Your task to perform on an android device: toggle pop-ups in chrome Image 0: 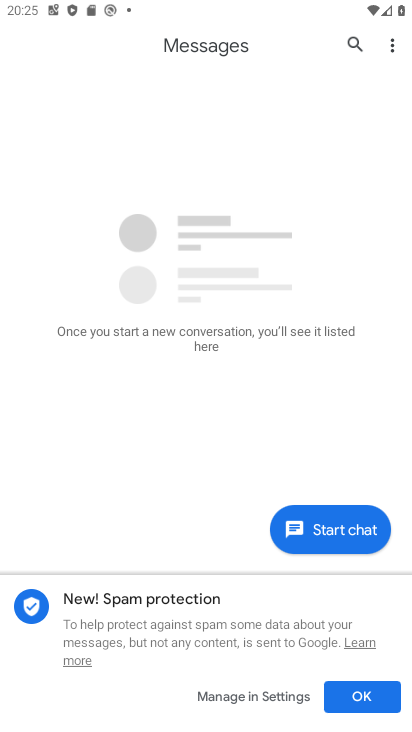
Step 0: press home button
Your task to perform on an android device: toggle pop-ups in chrome Image 1: 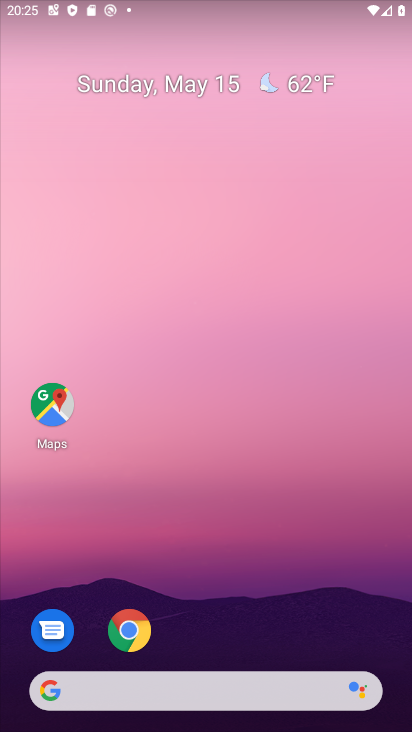
Step 1: click (132, 640)
Your task to perform on an android device: toggle pop-ups in chrome Image 2: 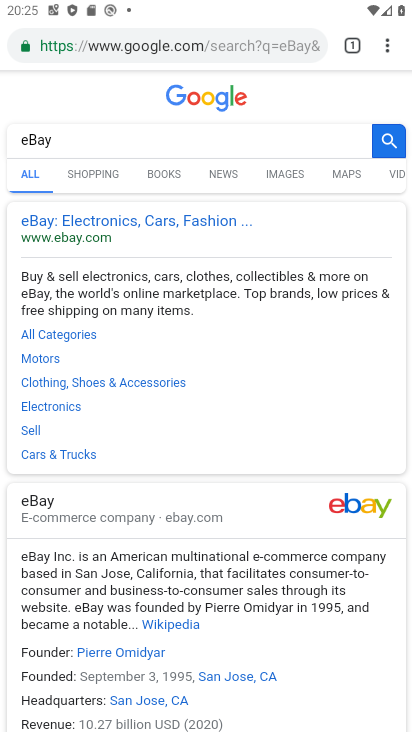
Step 2: click (377, 52)
Your task to perform on an android device: toggle pop-ups in chrome Image 3: 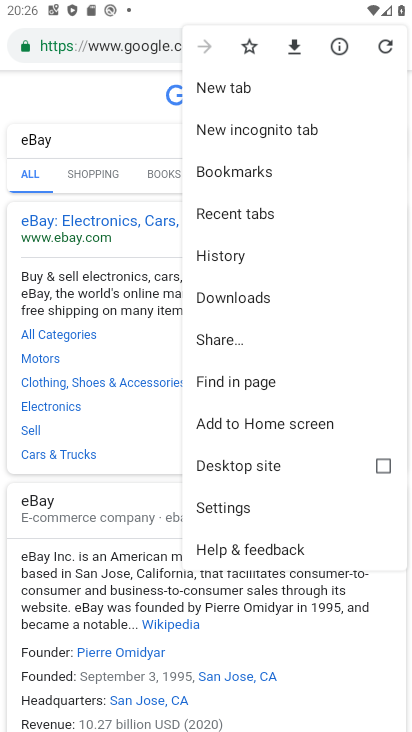
Step 3: click (232, 512)
Your task to perform on an android device: toggle pop-ups in chrome Image 4: 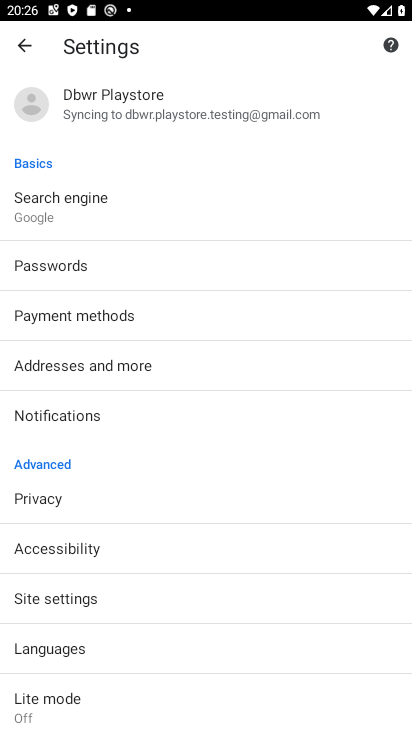
Step 4: click (70, 605)
Your task to perform on an android device: toggle pop-ups in chrome Image 5: 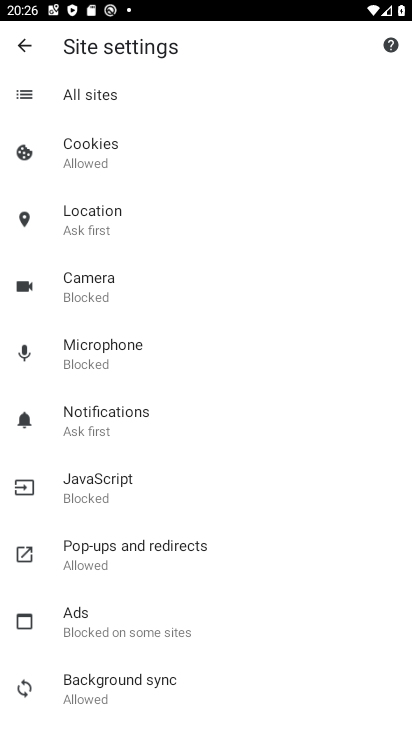
Step 5: click (104, 566)
Your task to perform on an android device: toggle pop-ups in chrome Image 6: 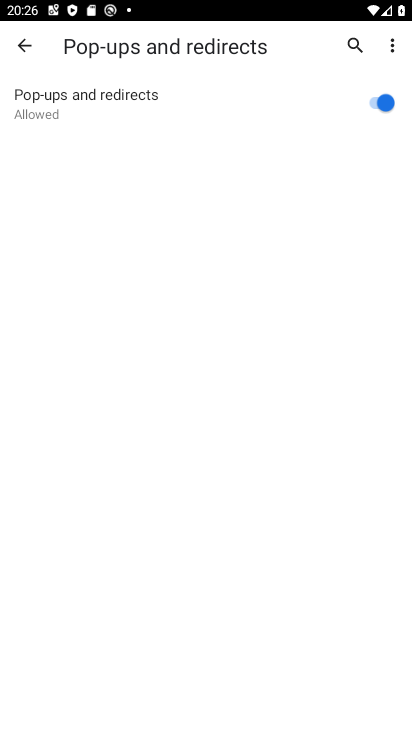
Step 6: click (369, 104)
Your task to perform on an android device: toggle pop-ups in chrome Image 7: 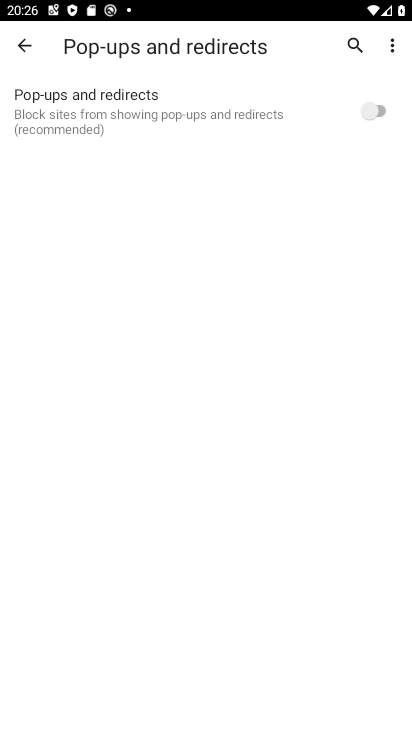
Step 7: task complete